Your task to perform on an android device: Search for sushi restaurants on Maps Image 0: 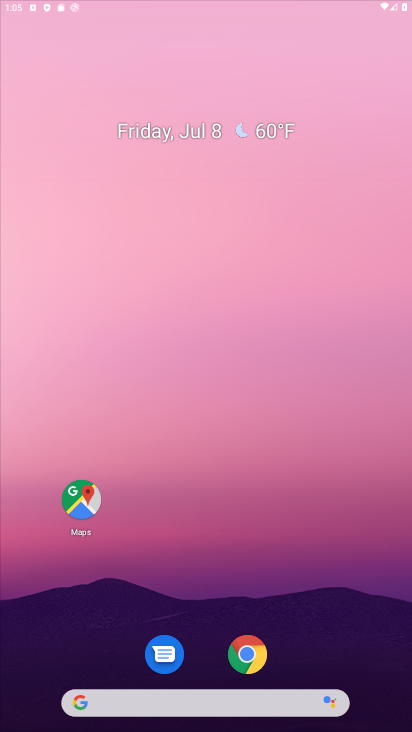
Step 0: press home button
Your task to perform on an android device: Search for sushi restaurants on Maps Image 1: 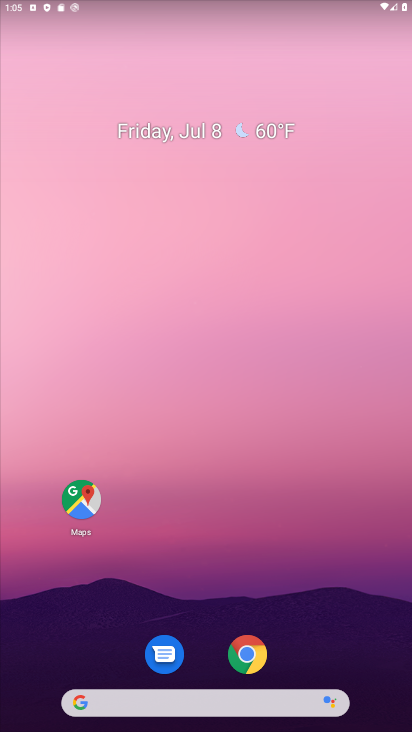
Step 1: click (188, 131)
Your task to perform on an android device: Search for sushi restaurants on Maps Image 2: 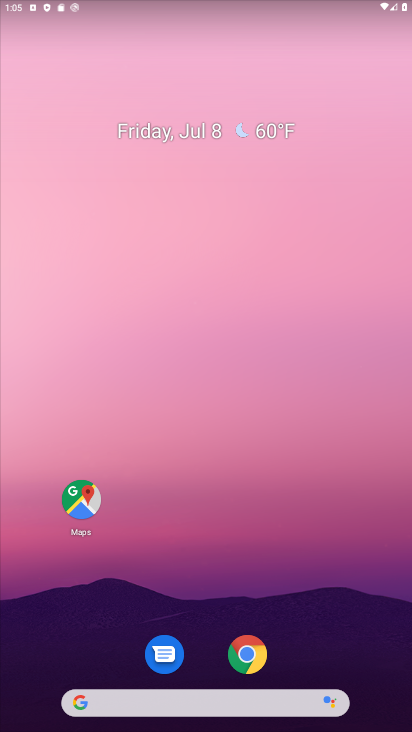
Step 2: click (74, 505)
Your task to perform on an android device: Search for sushi restaurants on Maps Image 3: 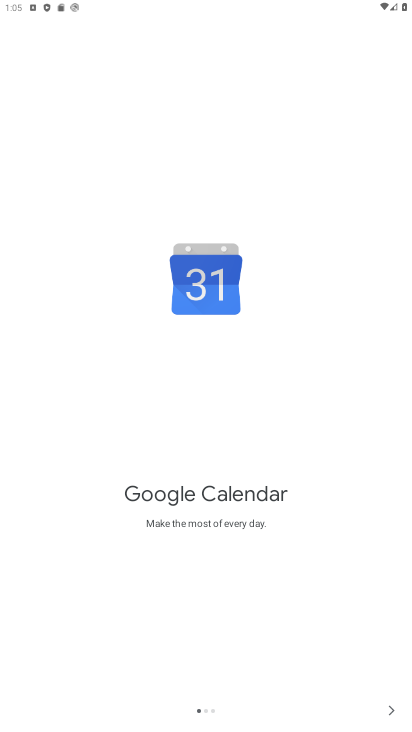
Step 3: press home button
Your task to perform on an android device: Search for sushi restaurants on Maps Image 4: 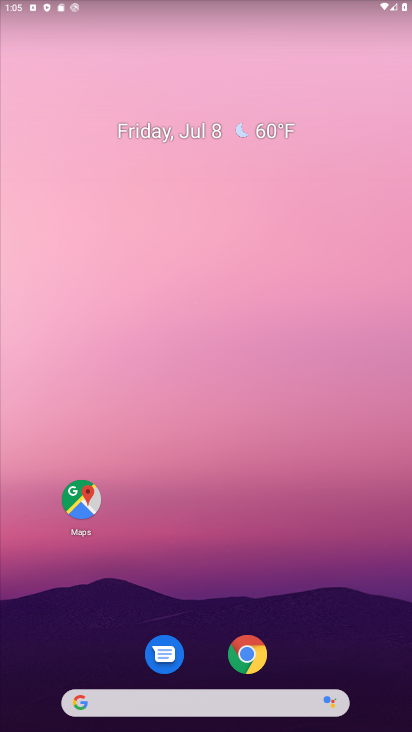
Step 4: click (79, 500)
Your task to perform on an android device: Search for sushi restaurants on Maps Image 5: 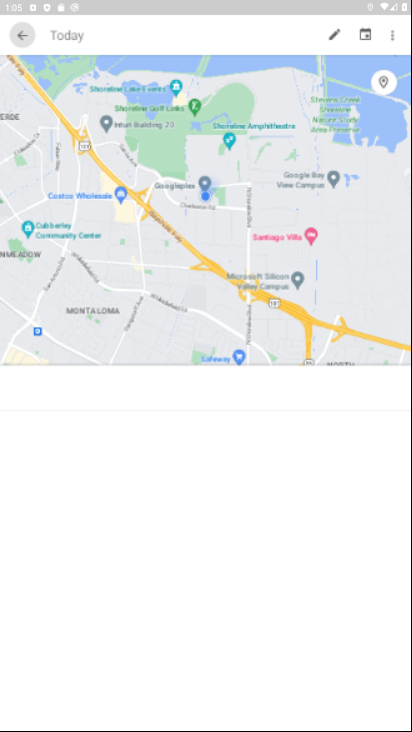
Step 5: click (21, 44)
Your task to perform on an android device: Search for sushi restaurants on Maps Image 6: 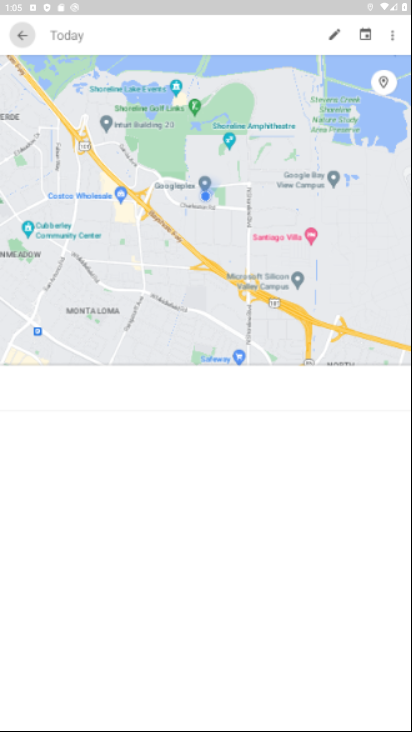
Step 6: press back button
Your task to perform on an android device: Search for sushi restaurants on Maps Image 7: 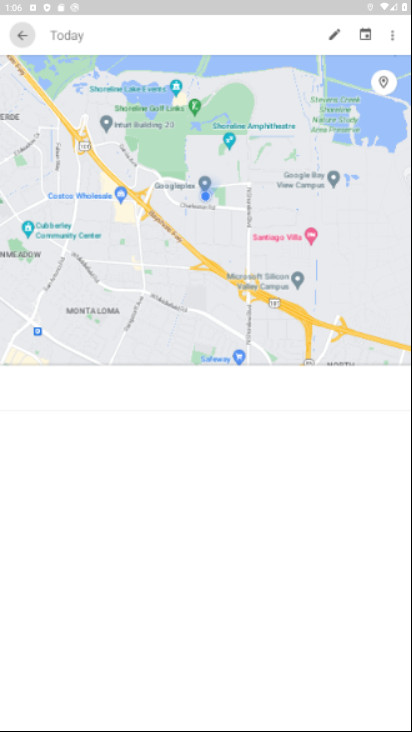
Step 7: press back button
Your task to perform on an android device: Search for sushi restaurants on Maps Image 8: 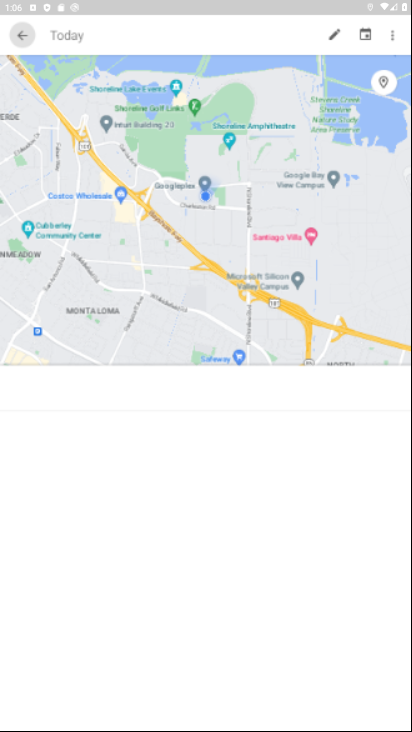
Step 8: press back button
Your task to perform on an android device: Search for sushi restaurants on Maps Image 9: 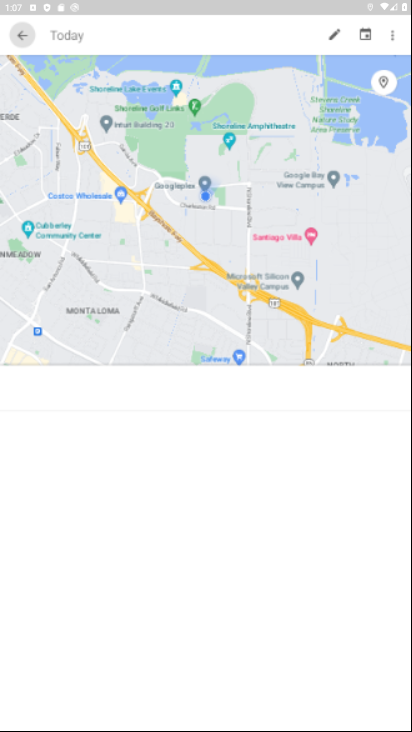
Step 9: press back button
Your task to perform on an android device: Search for sushi restaurants on Maps Image 10: 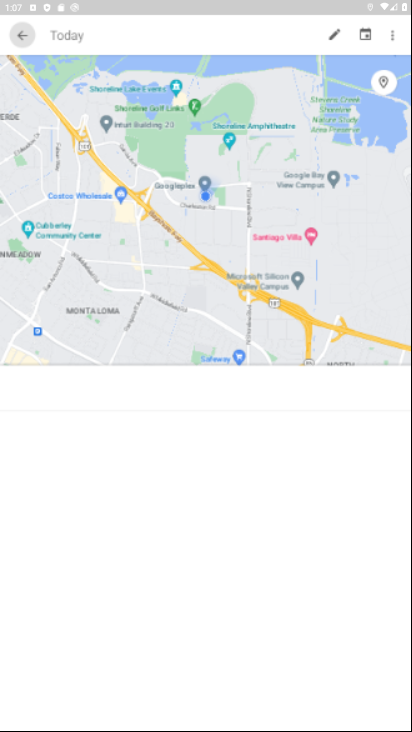
Step 10: click (34, 36)
Your task to perform on an android device: Search for sushi restaurants on Maps Image 11: 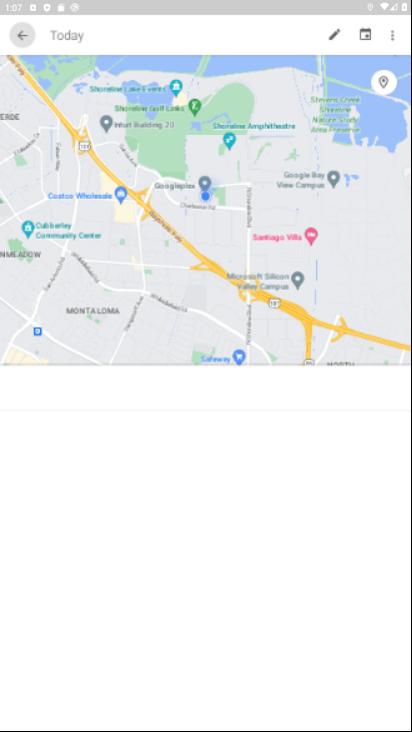
Step 11: task complete